Your task to perform on an android device: Search for Mexican restaurants on Maps Image 0: 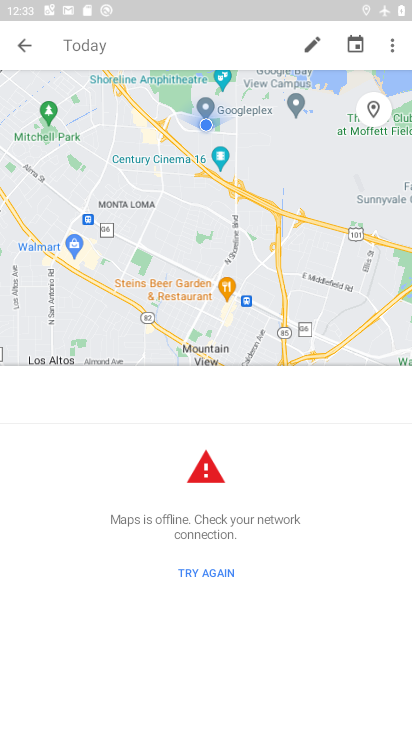
Step 0: press home button
Your task to perform on an android device: Search for Mexican restaurants on Maps Image 1: 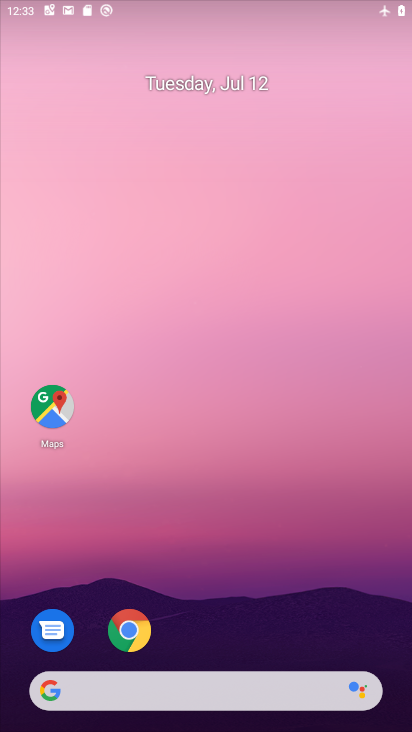
Step 1: drag from (238, 676) to (290, 178)
Your task to perform on an android device: Search for Mexican restaurants on Maps Image 2: 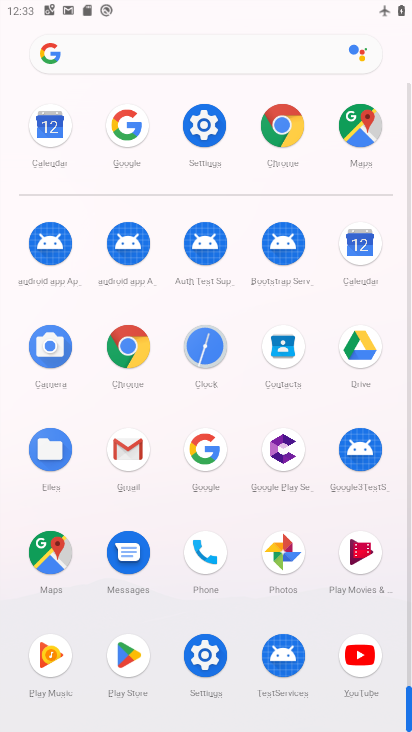
Step 2: click (55, 559)
Your task to perform on an android device: Search for Mexican restaurants on Maps Image 3: 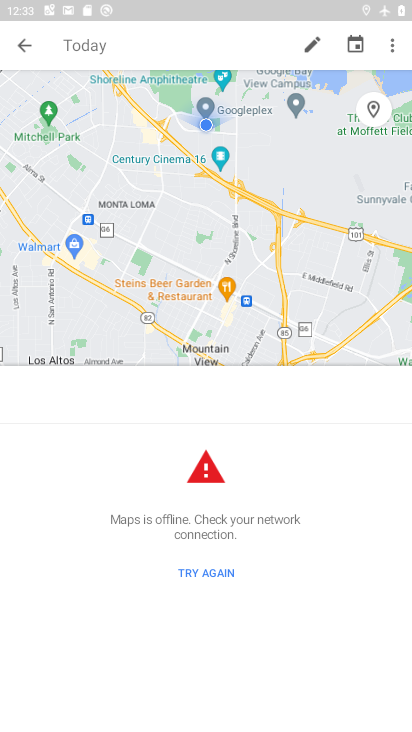
Step 3: click (27, 52)
Your task to perform on an android device: Search for Mexican restaurants on Maps Image 4: 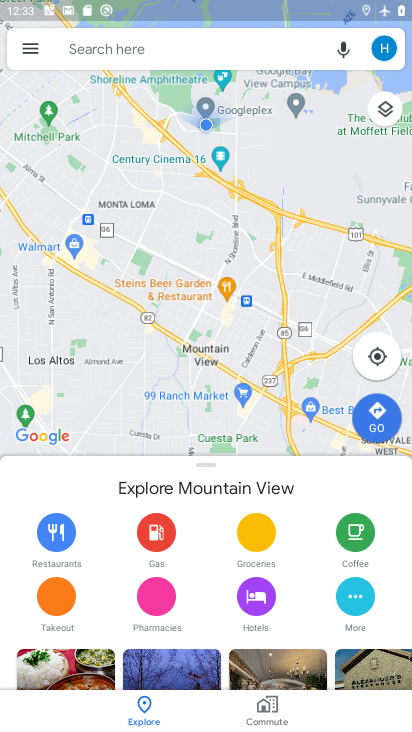
Step 4: click (106, 63)
Your task to perform on an android device: Search for Mexican restaurants on Maps Image 5: 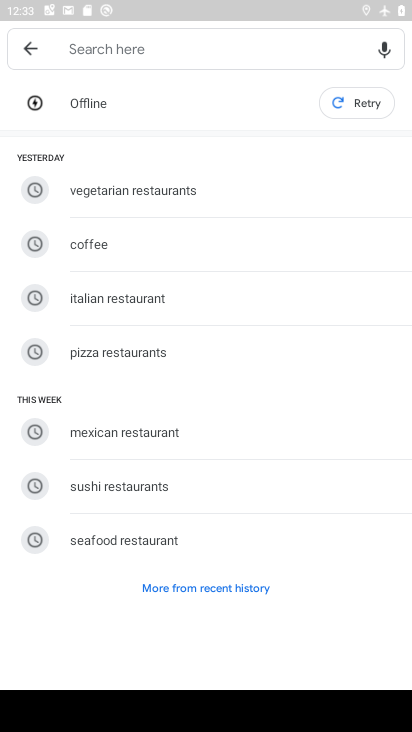
Step 5: click (130, 426)
Your task to perform on an android device: Search for Mexican restaurants on Maps Image 6: 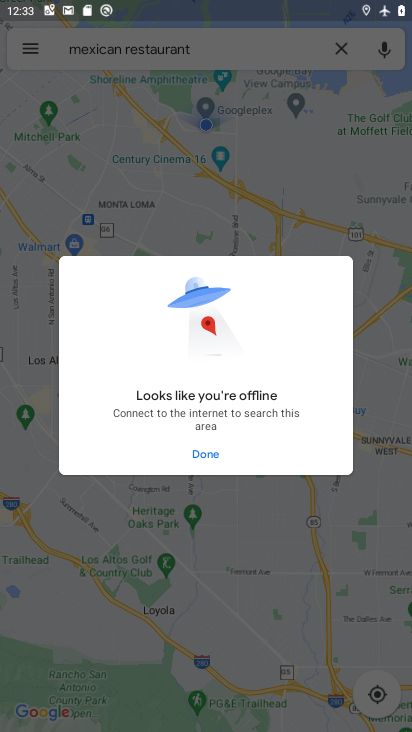
Step 6: task complete